Your task to perform on an android device: Go to network settings Image 0: 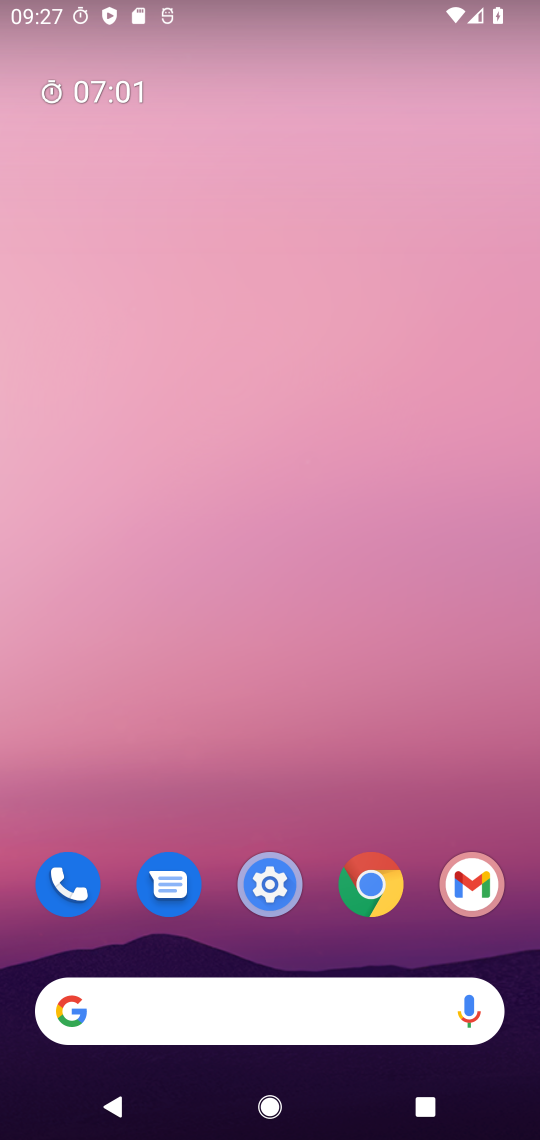
Step 0: click (278, 870)
Your task to perform on an android device: Go to network settings Image 1: 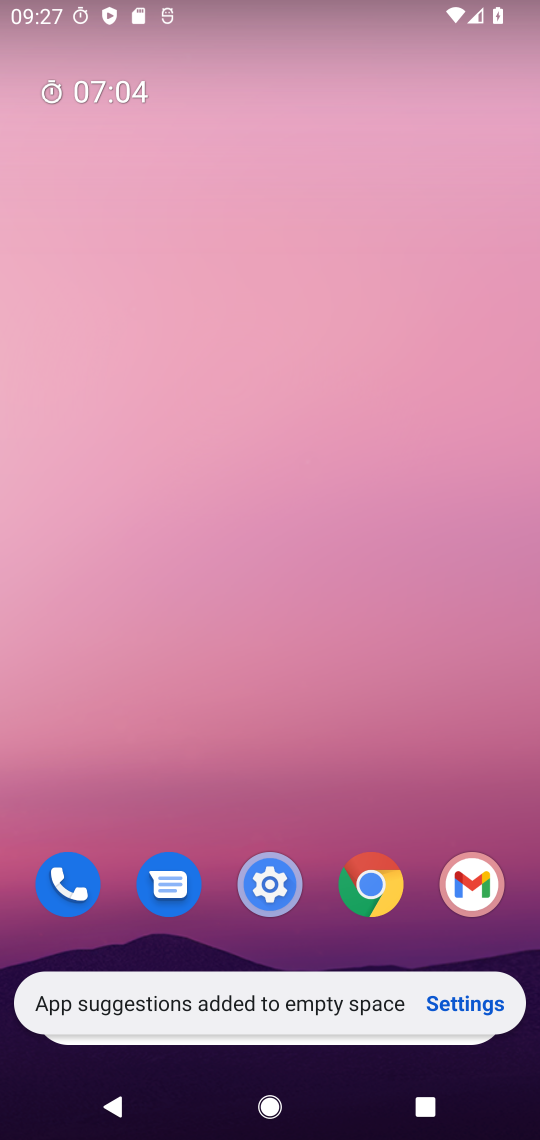
Step 1: click (263, 889)
Your task to perform on an android device: Go to network settings Image 2: 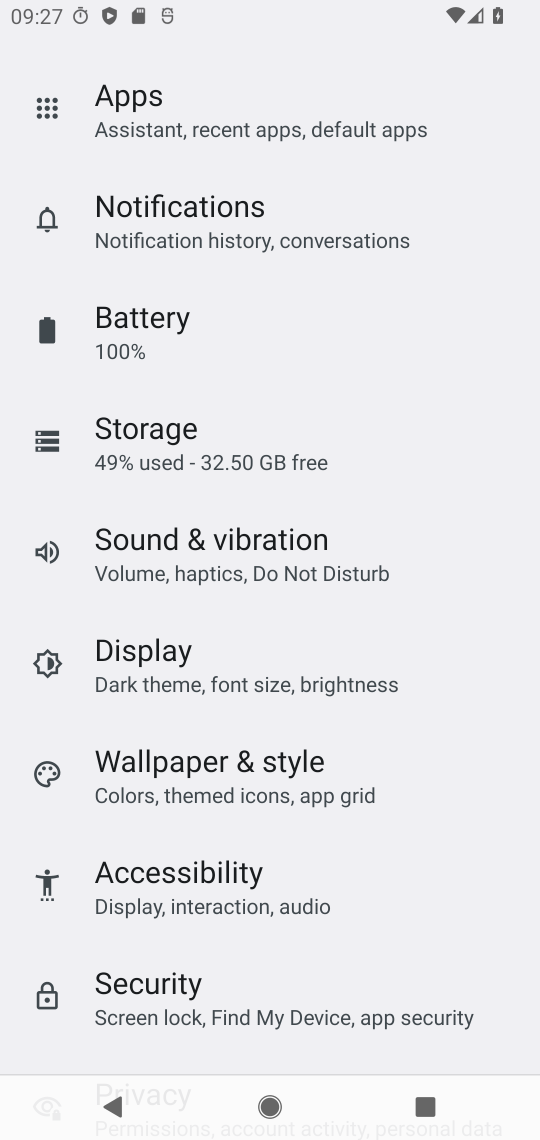
Step 2: drag from (259, 247) to (267, 898)
Your task to perform on an android device: Go to network settings Image 3: 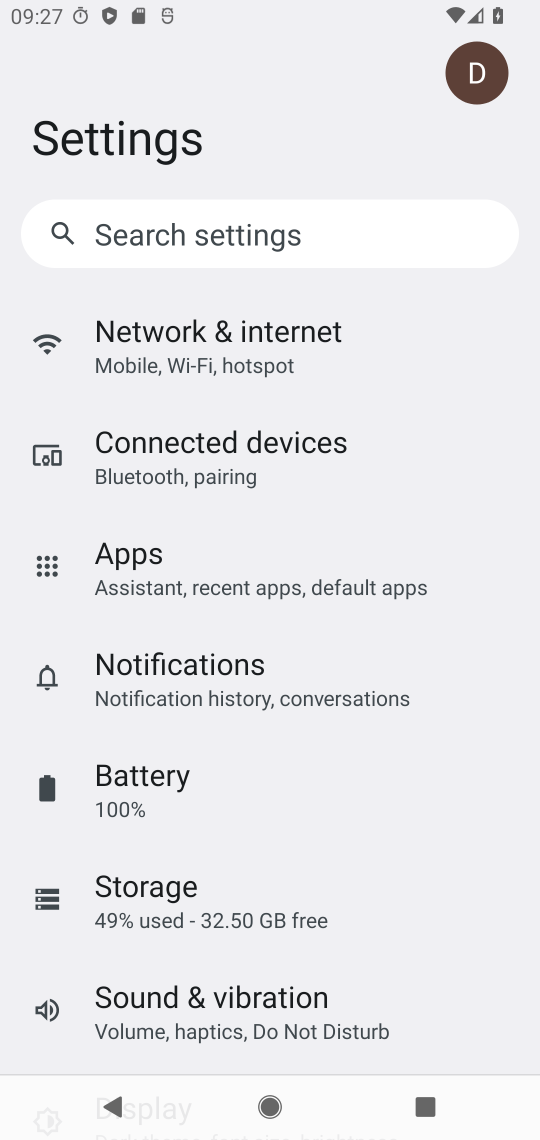
Step 3: click (239, 374)
Your task to perform on an android device: Go to network settings Image 4: 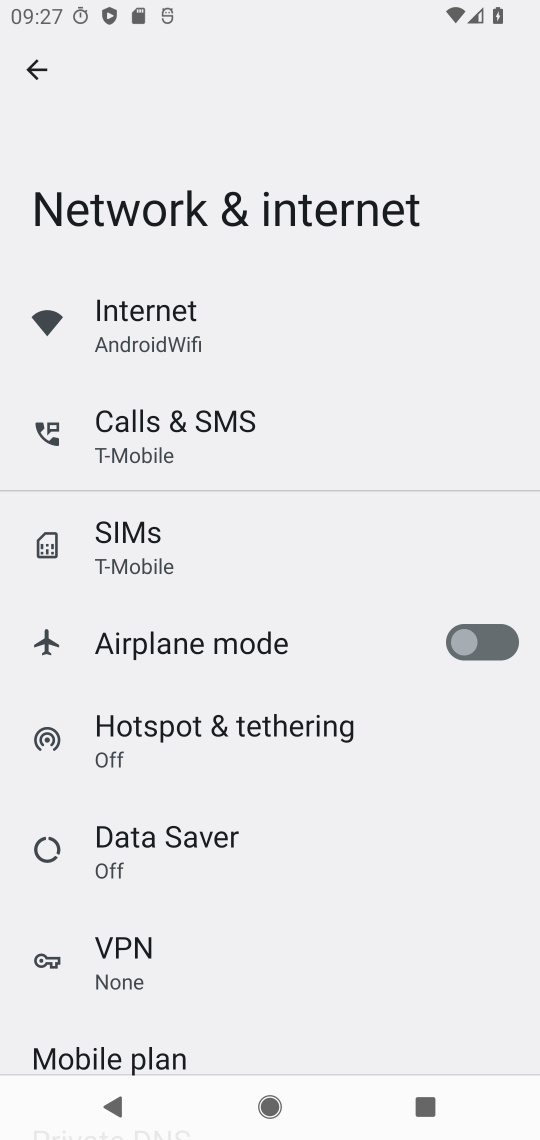
Step 4: click (191, 342)
Your task to perform on an android device: Go to network settings Image 5: 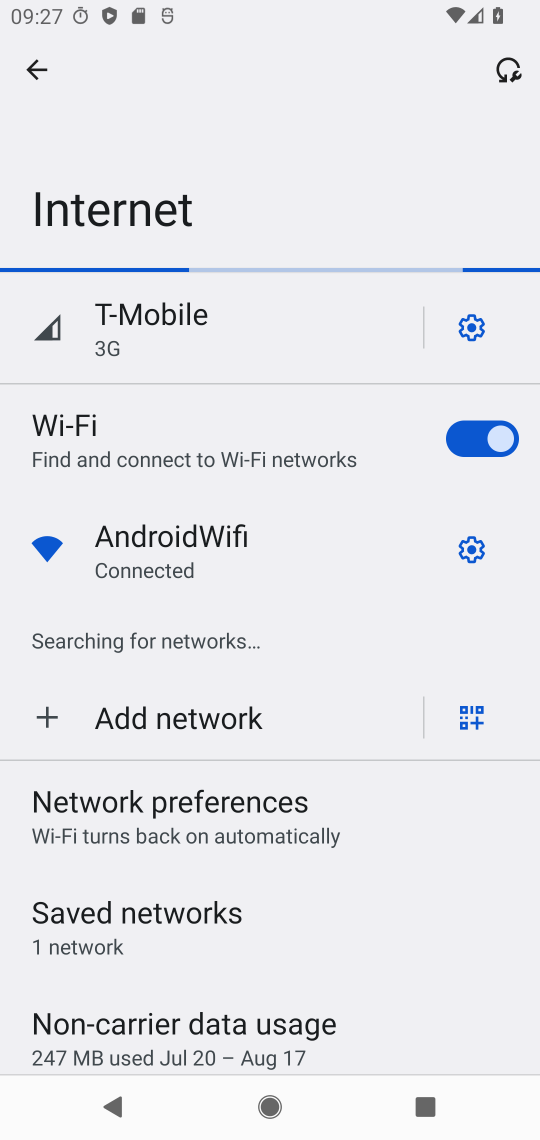
Step 5: task complete